Your task to perform on an android device: Open my contact list Image 0: 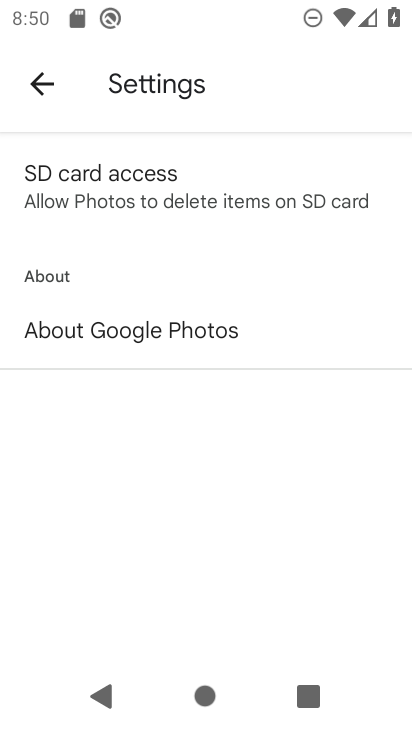
Step 0: press home button
Your task to perform on an android device: Open my contact list Image 1: 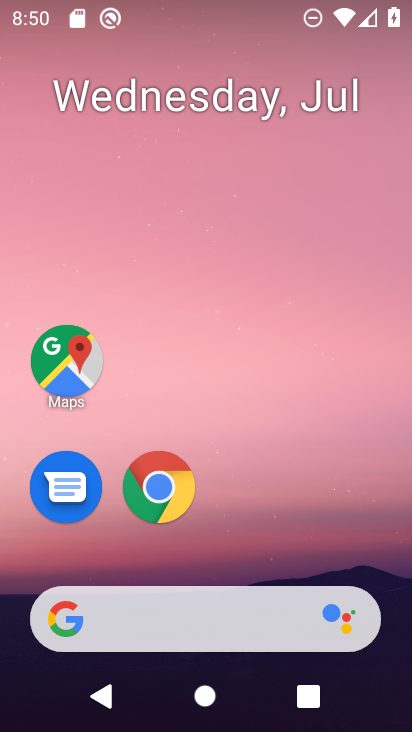
Step 1: drag from (344, 519) to (354, 166)
Your task to perform on an android device: Open my contact list Image 2: 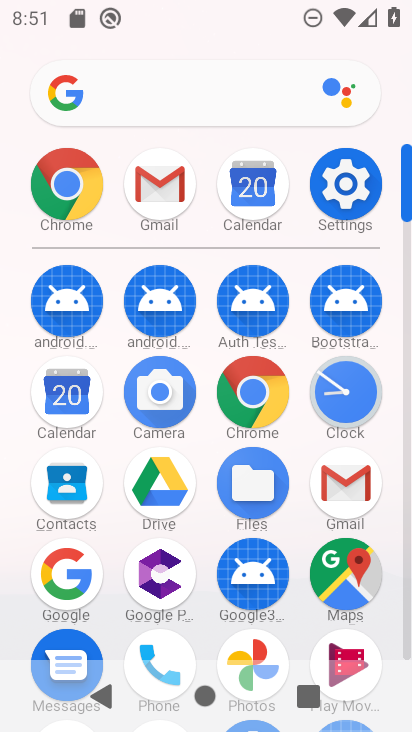
Step 2: click (73, 475)
Your task to perform on an android device: Open my contact list Image 3: 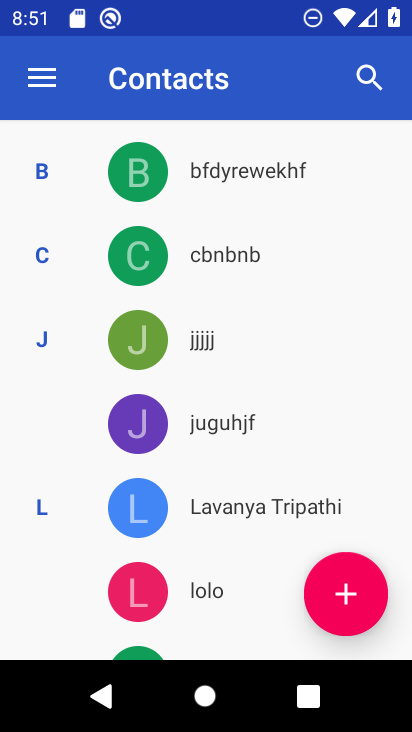
Step 3: task complete